Your task to perform on an android device: find snoozed emails in the gmail app Image 0: 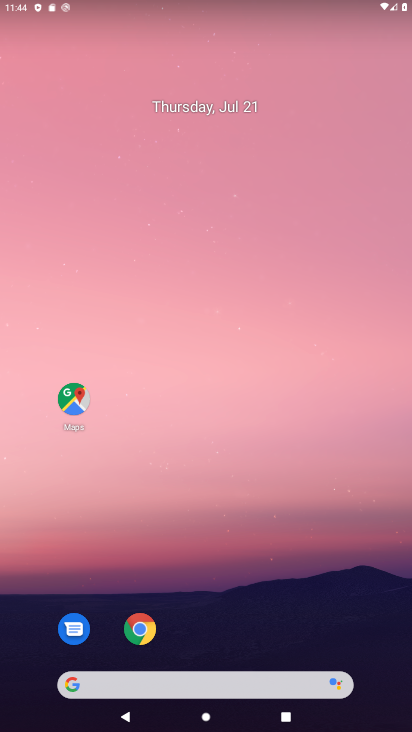
Step 0: click (150, 63)
Your task to perform on an android device: find snoozed emails in the gmail app Image 1: 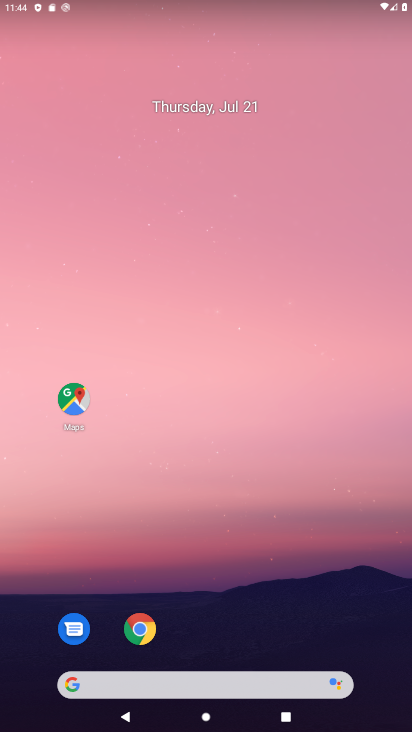
Step 1: drag from (172, 286) to (167, 75)
Your task to perform on an android device: find snoozed emails in the gmail app Image 2: 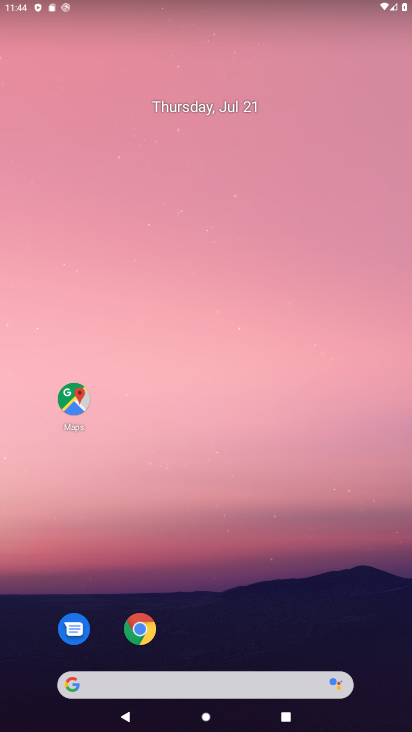
Step 2: drag from (192, 422) to (195, 2)
Your task to perform on an android device: find snoozed emails in the gmail app Image 3: 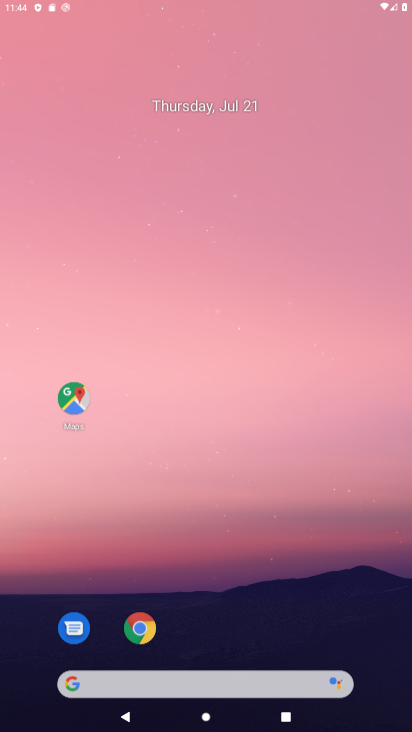
Step 3: click (201, 215)
Your task to perform on an android device: find snoozed emails in the gmail app Image 4: 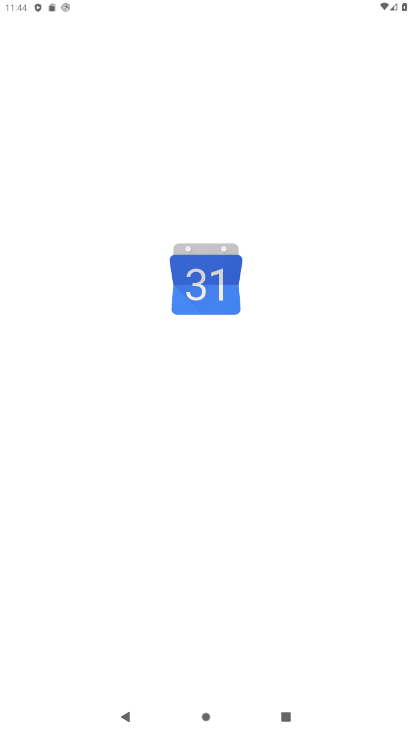
Step 4: drag from (125, 43) to (177, 118)
Your task to perform on an android device: find snoozed emails in the gmail app Image 5: 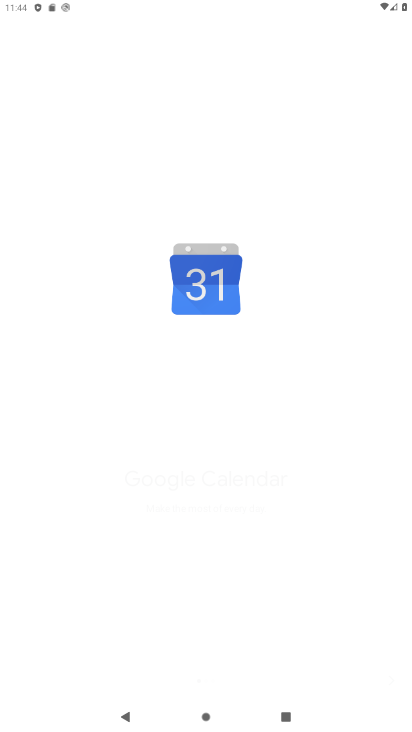
Step 5: drag from (322, 465) to (307, 141)
Your task to perform on an android device: find snoozed emails in the gmail app Image 6: 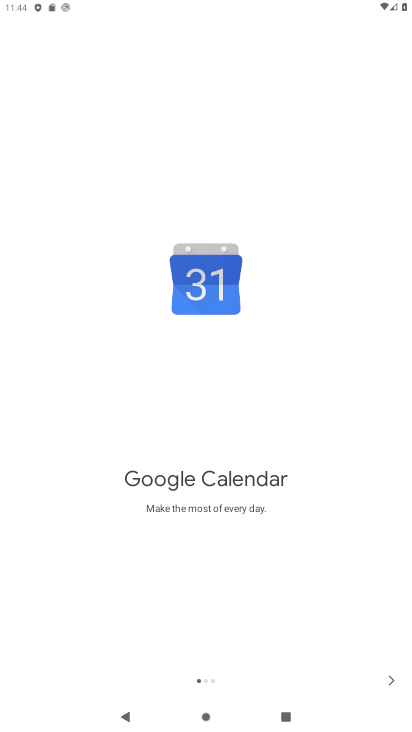
Step 6: press back button
Your task to perform on an android device: find snoozed emails in the gmail app Image 7: 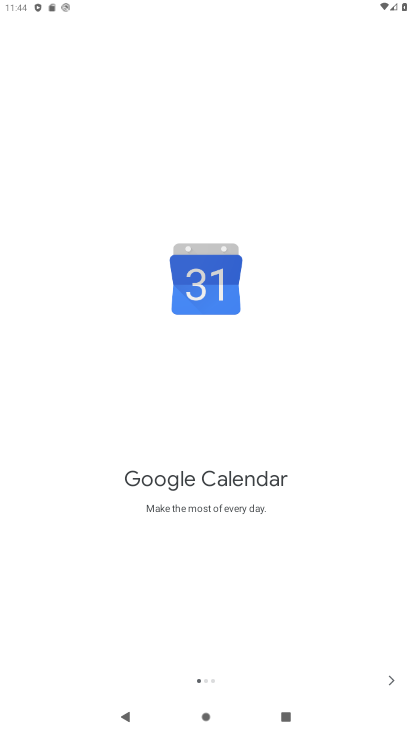
Step 7: press back button
Your task to perform on an android device: find snoozed emails in the gmail app Image 8: 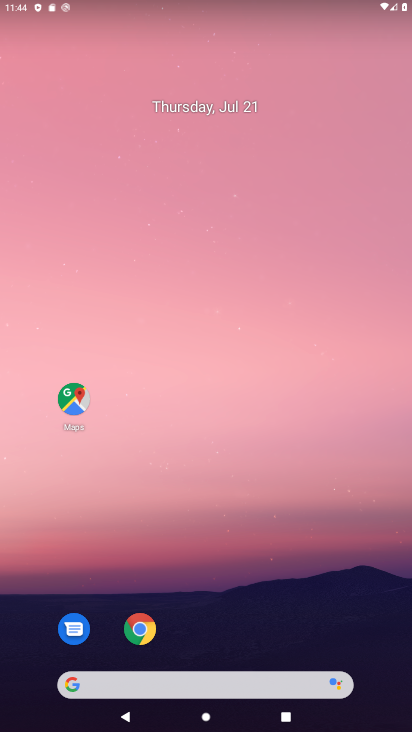
Step 8: drag from (158, 153) to (165, 19)
Your task to perform on an android device: find snoozed emails in the gmail app Image 9: 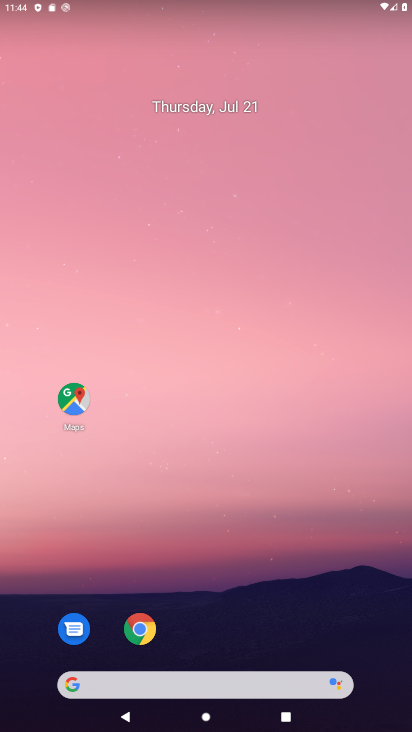
Step 9: drag from (267, 512) to (233, 150)
Your task to perform on an android device: find snoozed emails in the gmail app Image 10: 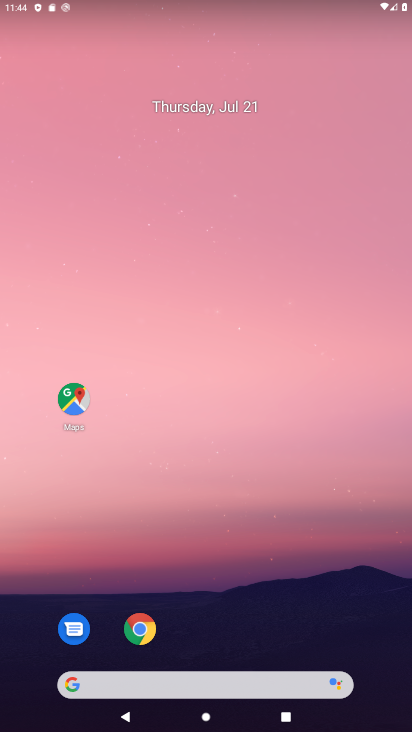
Step 10: drag from (264, 379) to (232, 82)
Your task to perform on an android device: find snoozed emails in the gmail app Image 11: 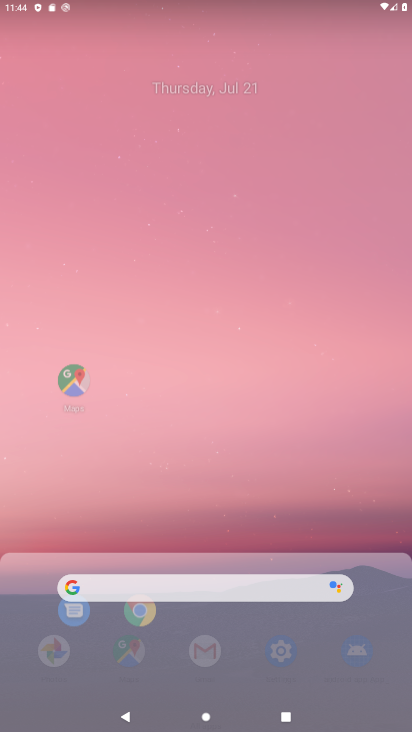
Step 11: drag from (234, 472) to (195, 34)
Your task to perform on an android device: find snoozed emails in the gmail app Image 12: 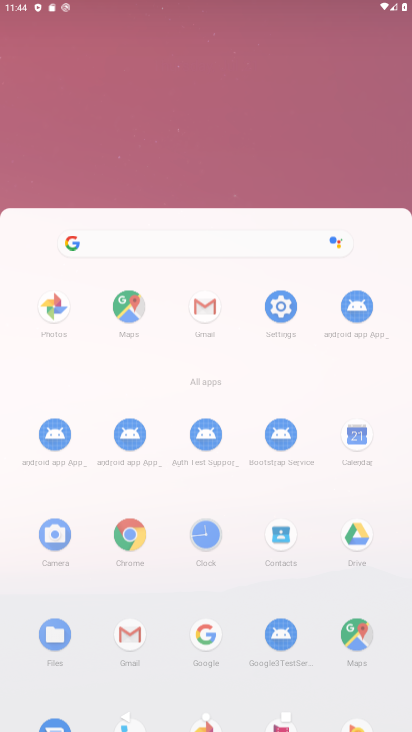
Step 12: click (171, 46)
Your task to perform on an android device: find snoozed emails in the gmail app Image 13: 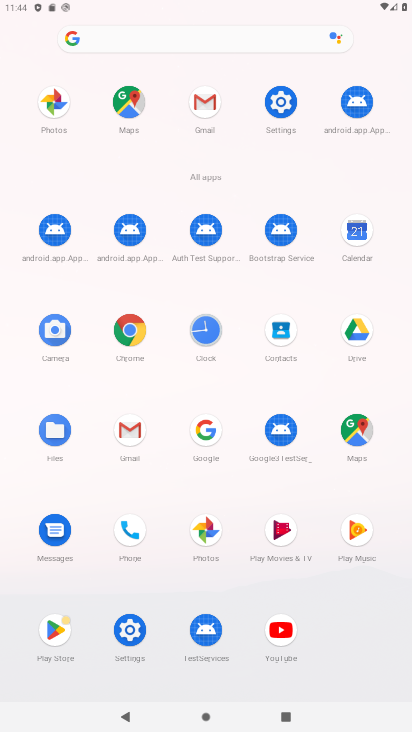
Step 13: drag from (215, 443) to (173, 29)
Your task to perform on an android device: find snoozed emails in the gmail app Image 14: 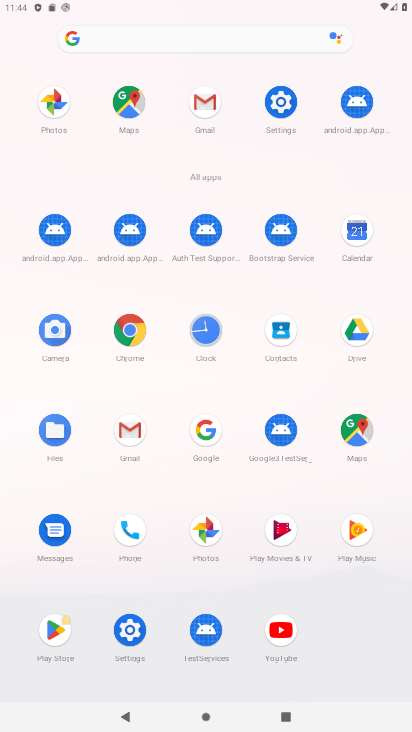
Step 14: click (125, 423)
Your task to perform on an android device: find snoozed emails in the gmail app Image 15: 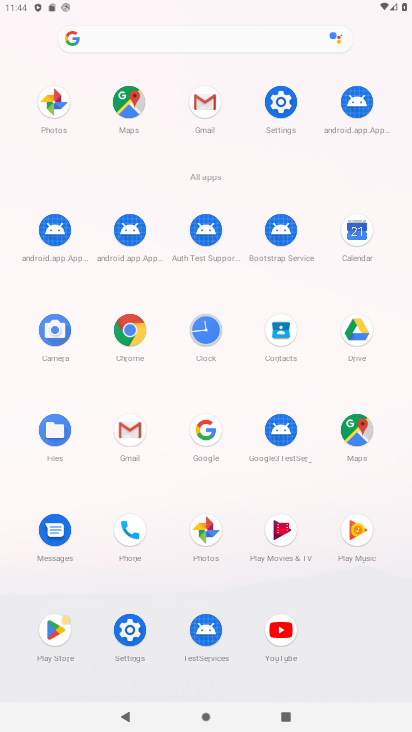
Step 15: click (125, 425)
Your task to perform on an android device: find snoozed emails in the gmail app Image 16: 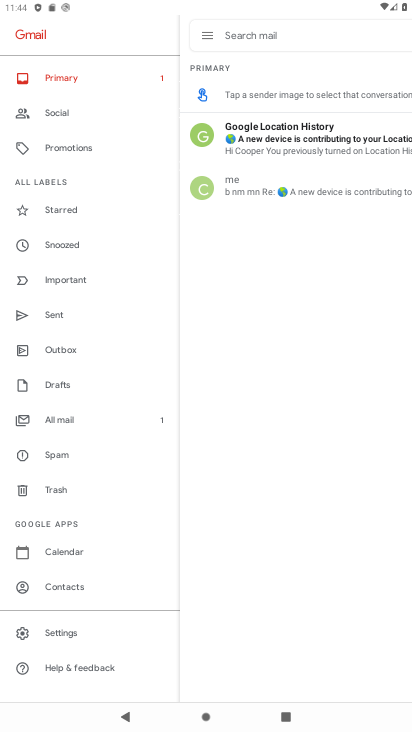
Step 16: click (60, 244)
Your task to perform on an android device: find snoozed emails in the gmail app Image 17: 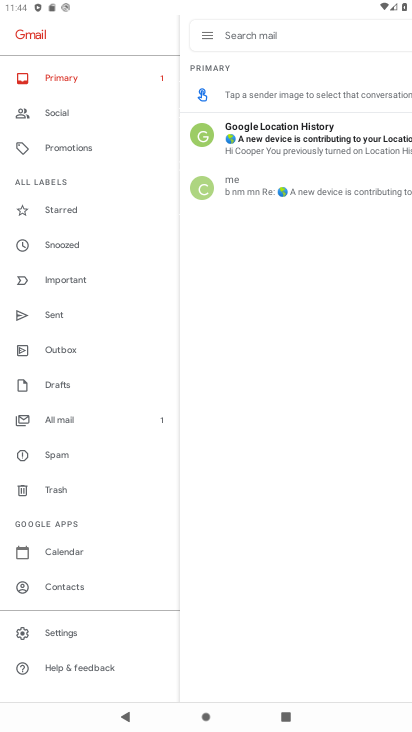
Step 17: click (59, 246)
Your task to perform on an android device: find snoozed emails in the gmail app Image 18: 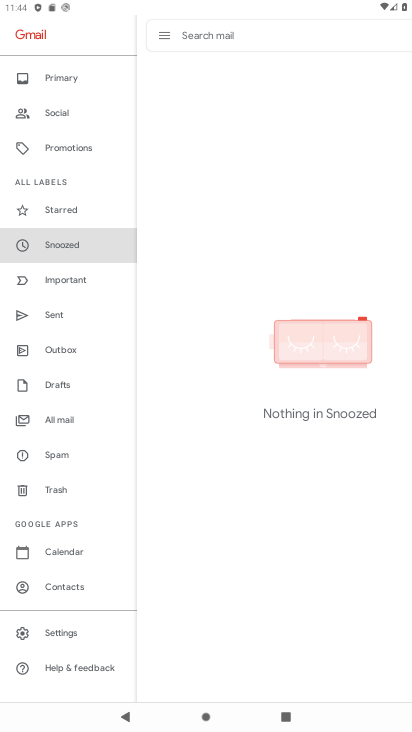
Step 18: click (60, 247)
Your task to perform on an android device: find snoozed emails in the gmail app Image 19: 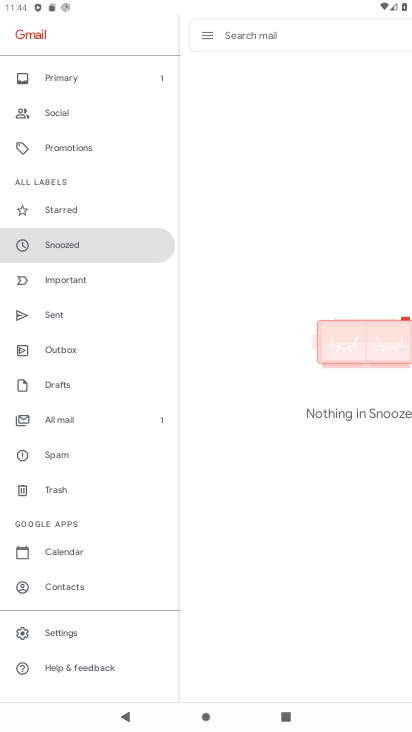
Step 19: task complete